Your task to perform on an android device: create a new album in the google photos Image 0: 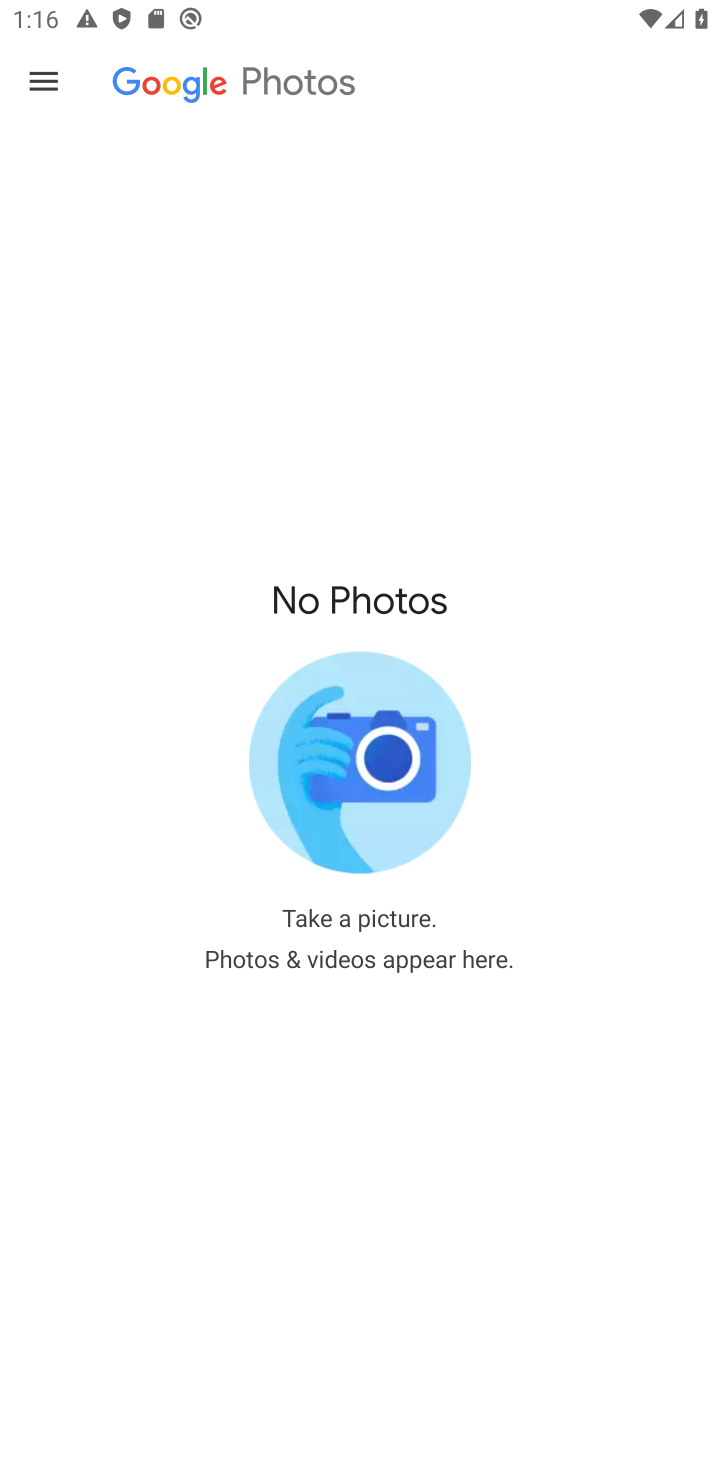
Step 0: press home button
Your task to perform on an android device: create a new album in the google photos Image 1: 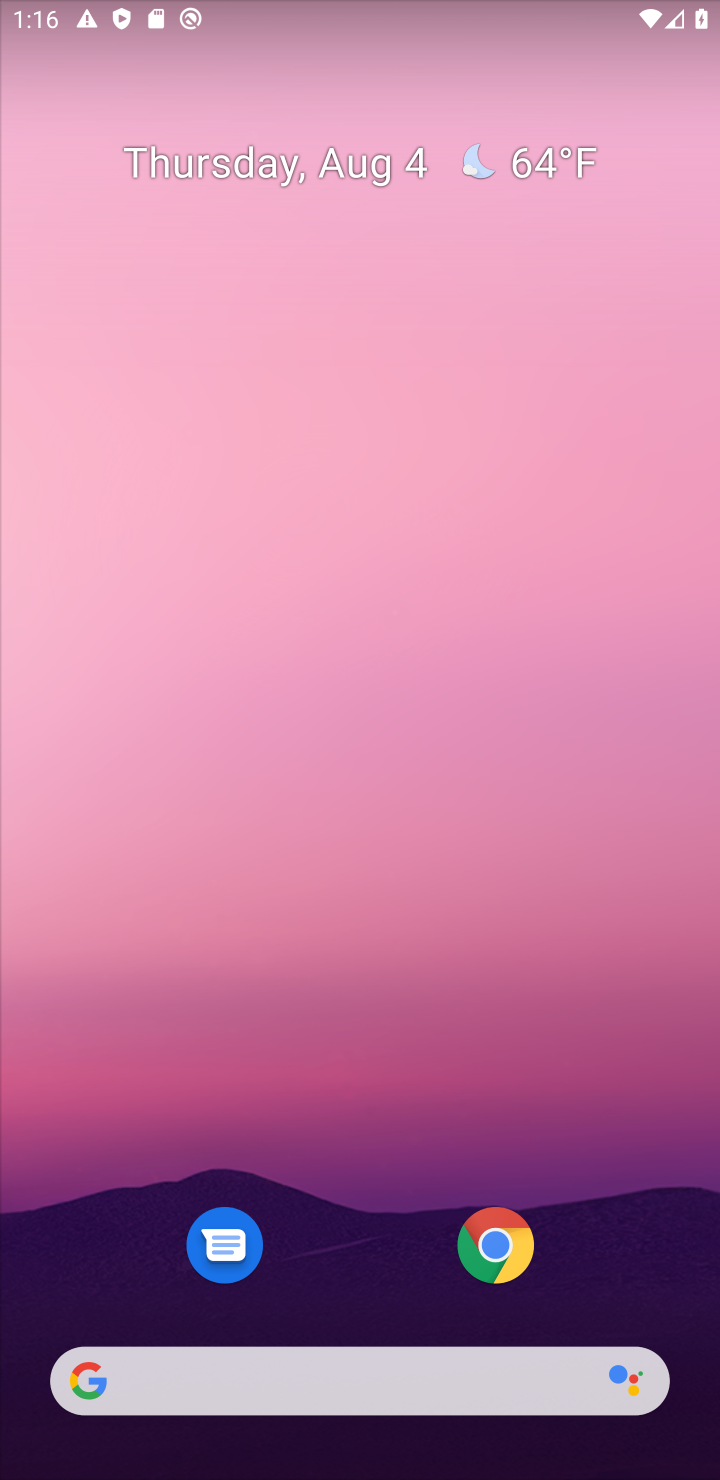
Step 1: drag from (351, 1165) to (348, 262)
Your task to perform on an android device: create a new album in the google photos Image 2: 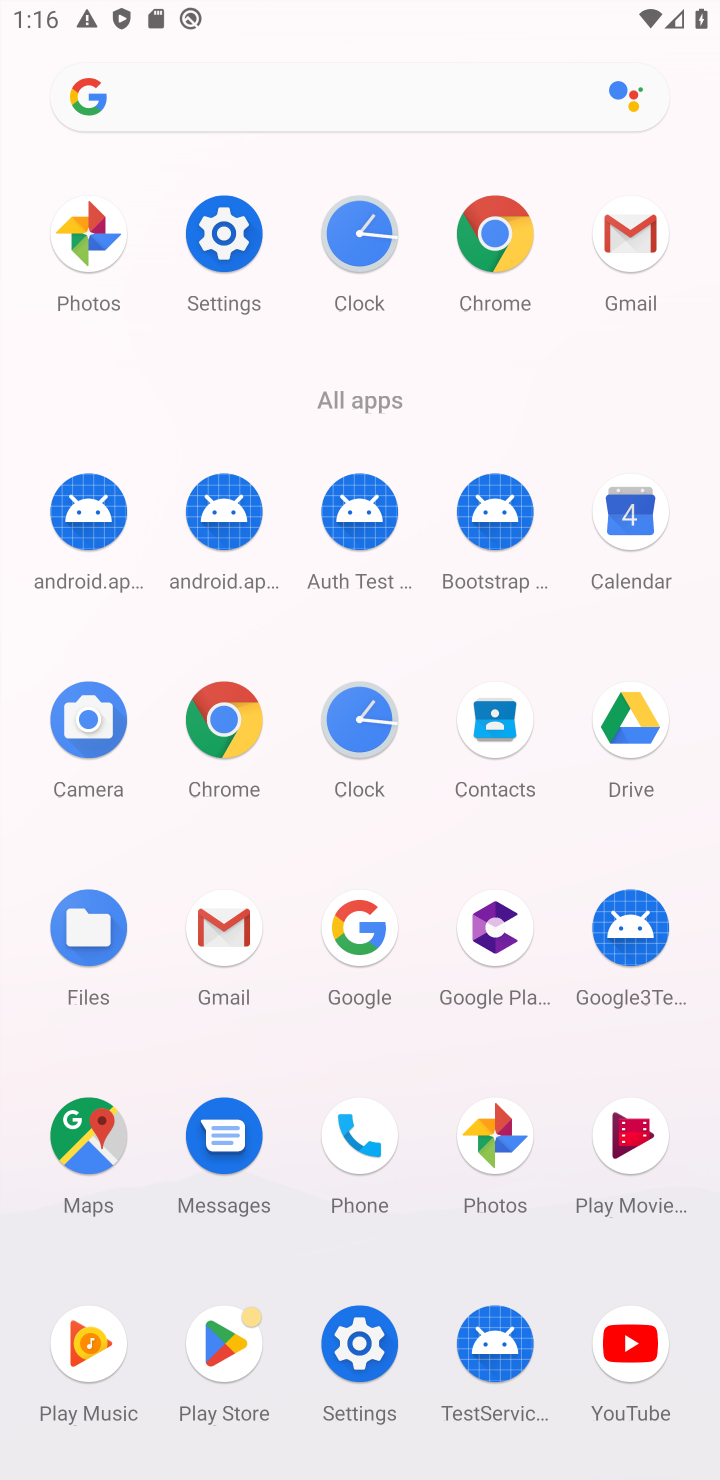
Step 2: click (72, 257)
Your task to perform on an android device: create a new album in the google photos Image 3: 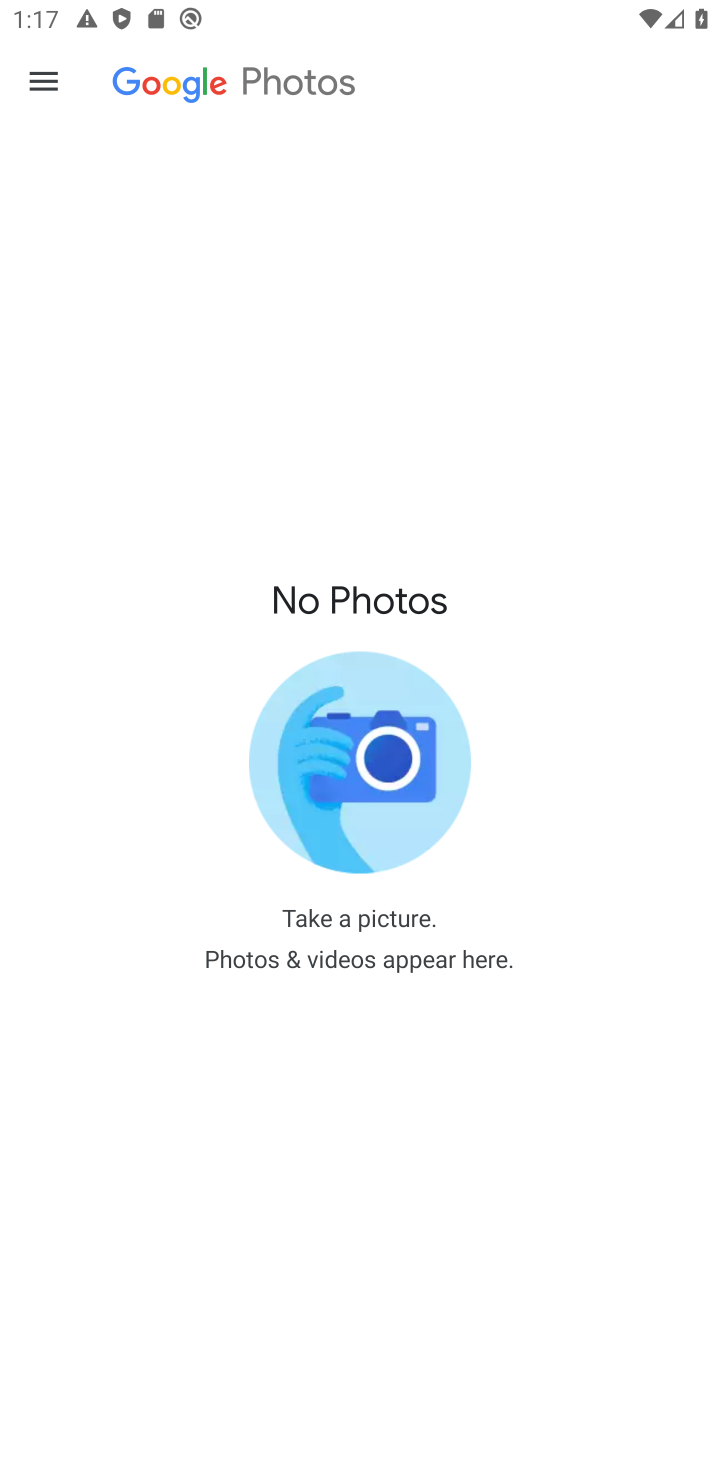
Step 3: click (35, 75)
Your task to perform on an android device: create a new album in the google photos Image 4: 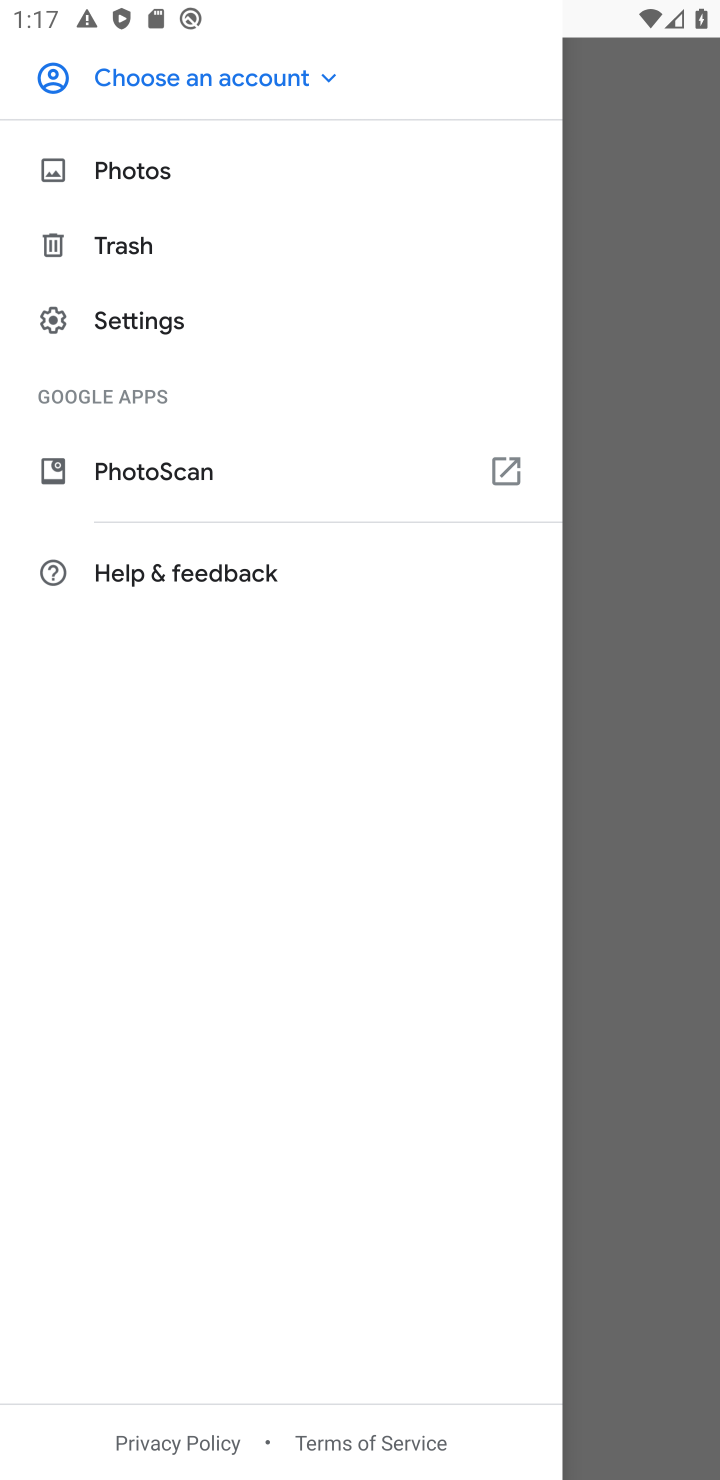
Step 4: click (646, 231)
Your task to perform on an android device: create a new album in the google photos Image 5: 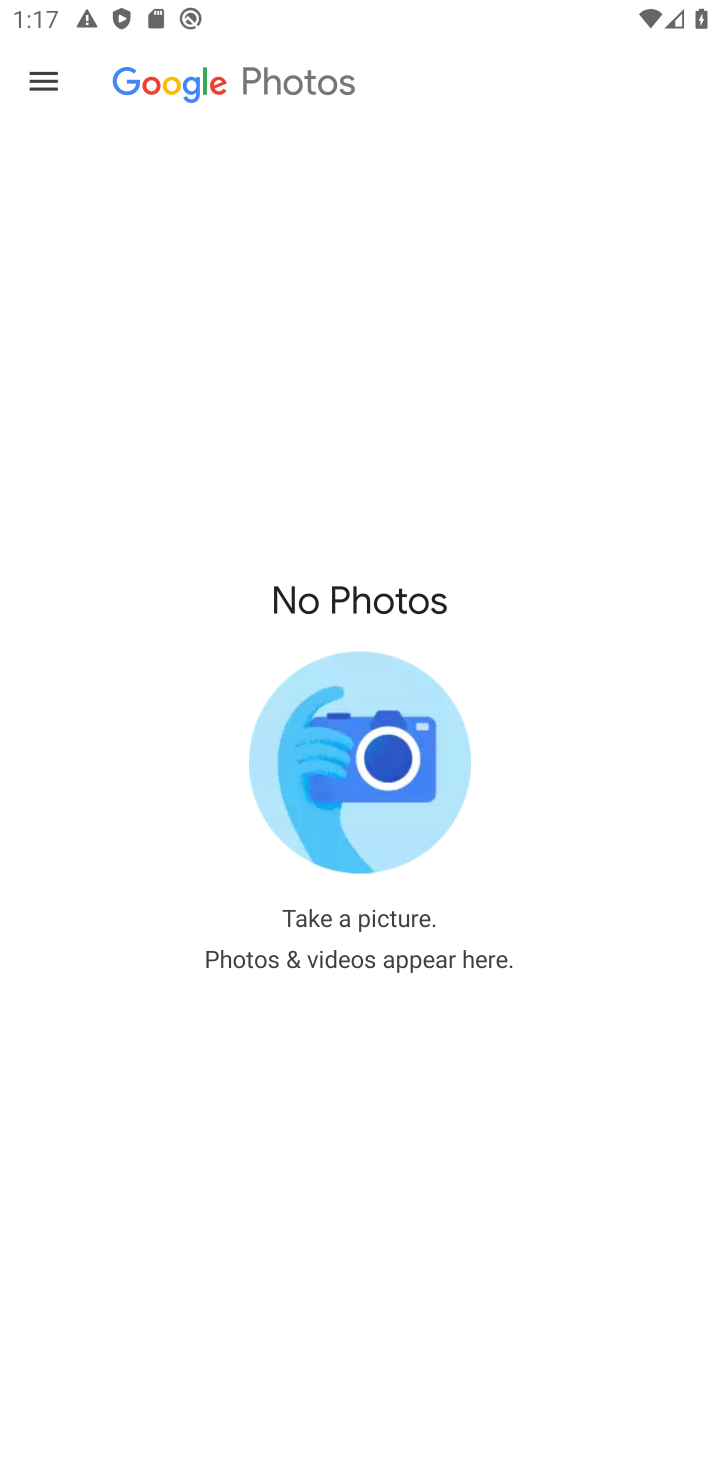
Step 5: click (48, 100)
Your task to perform on an android device: create a new album in the google photos Image 6: 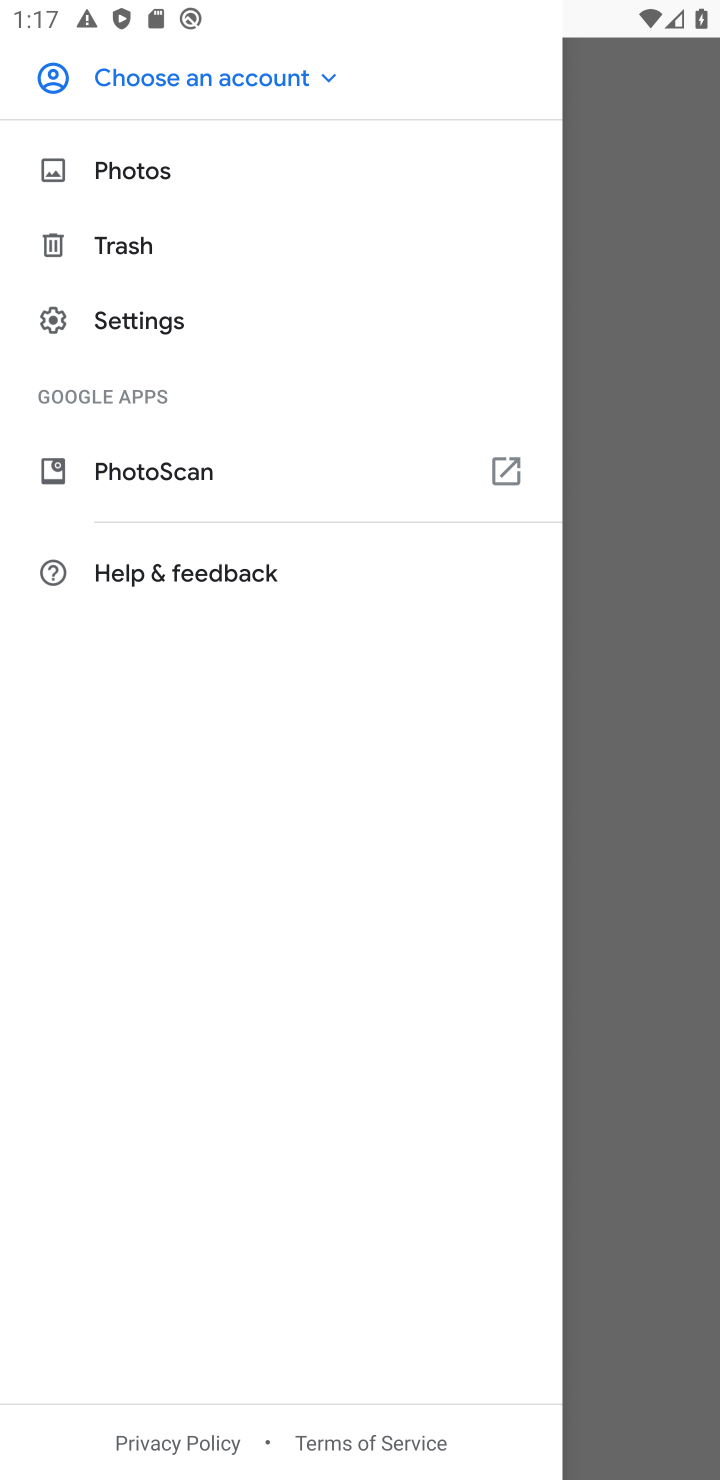
Step 6: click (97, 166)
Your task to perform on an android device: create a new album in the google photos Image 7: 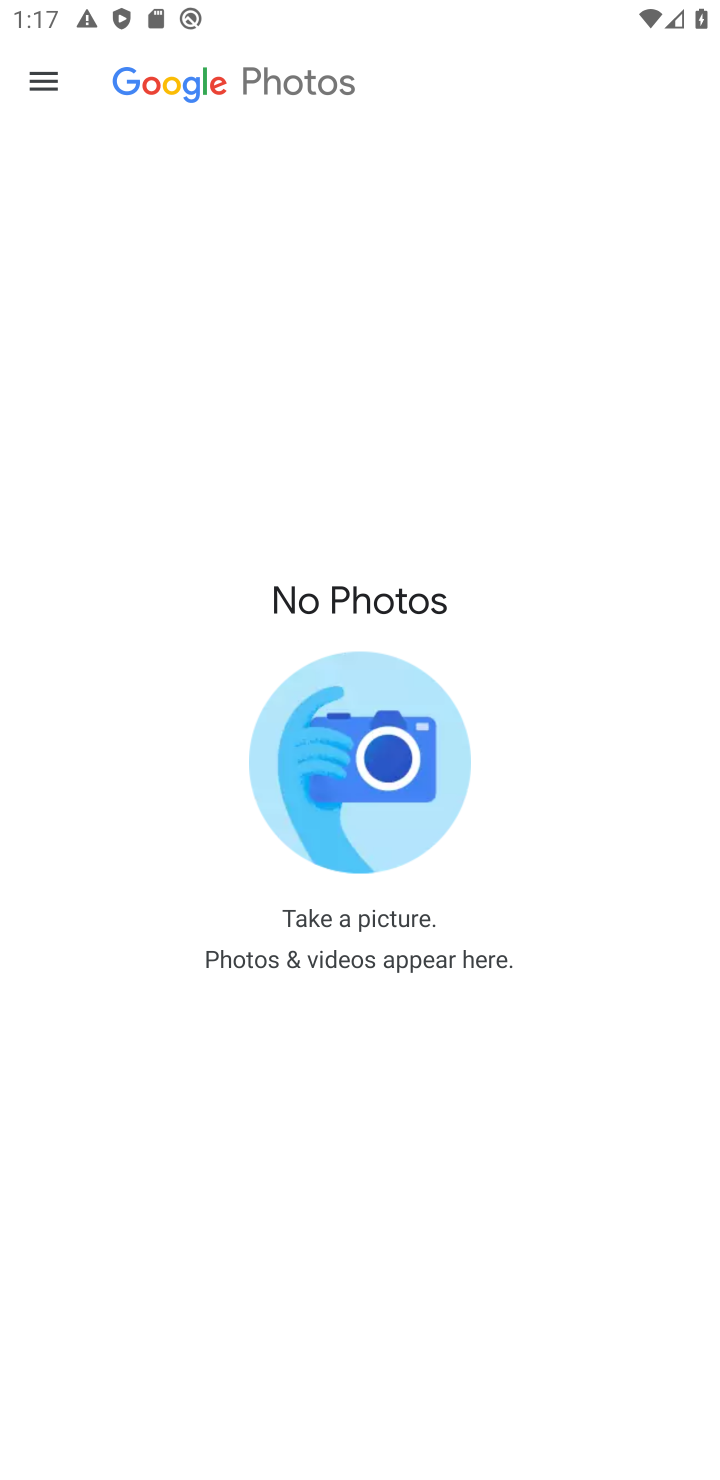
Step 7: task complete